Your task to perform on an android device: move an email to a new category in the gmail app Image 0: 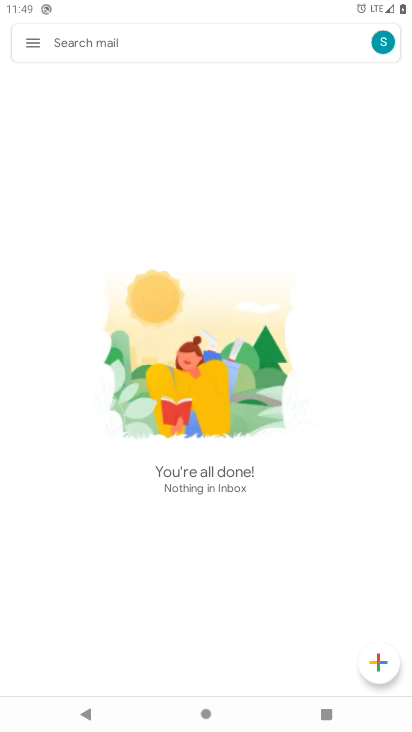
Step 0: click (45, 45)
Your task to perform on an android device: move an email to a new category in the gmail app Image 1: 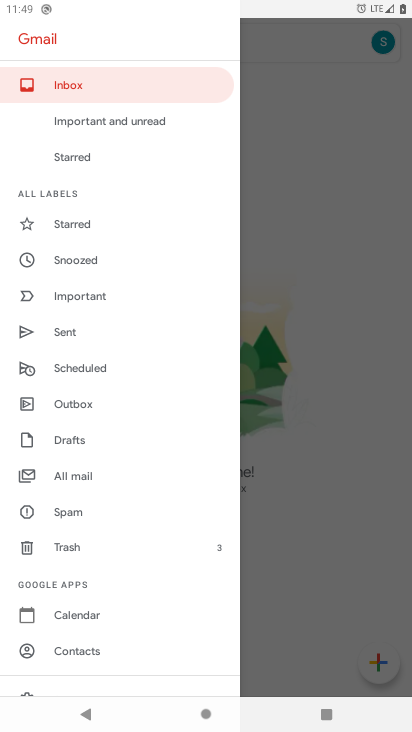
Step 1: click (97, 85)
Your task to perform on an android device: move an email to a new category in the gmail app Image 2: 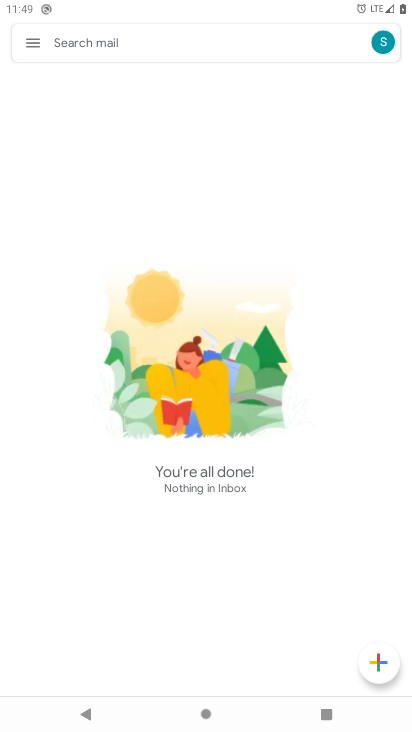
Step 2: task complete